Your task to perform on an android device: open chrome privacy settings Image 0: 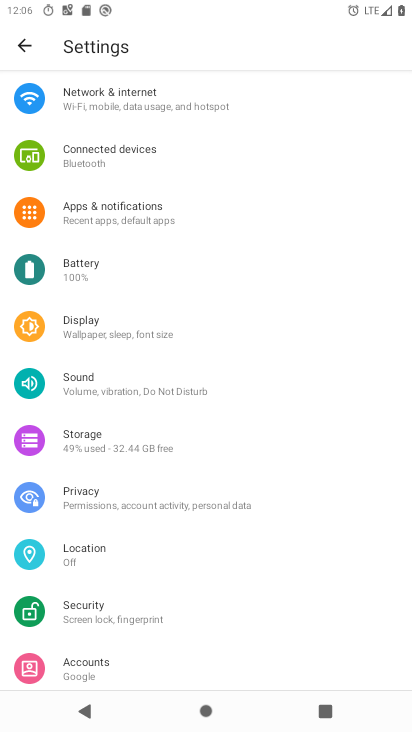
Step 0: press home button
Your task to perform on an android device: open chrome privacy settings Image 1: 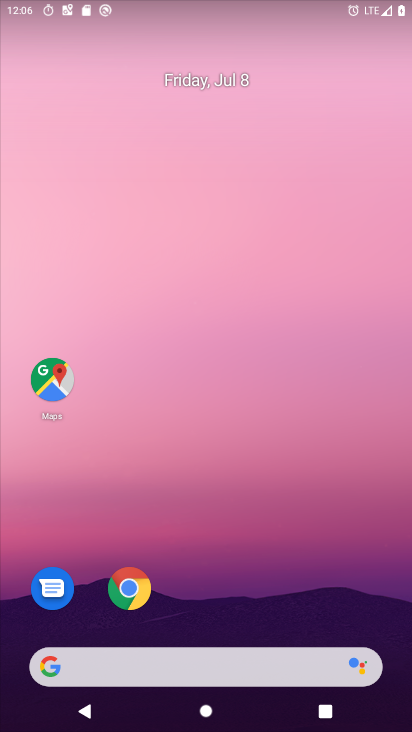
Step 1: click (132, 584)
Your task to perform on an android device: open chrome privacy settings Image 2: 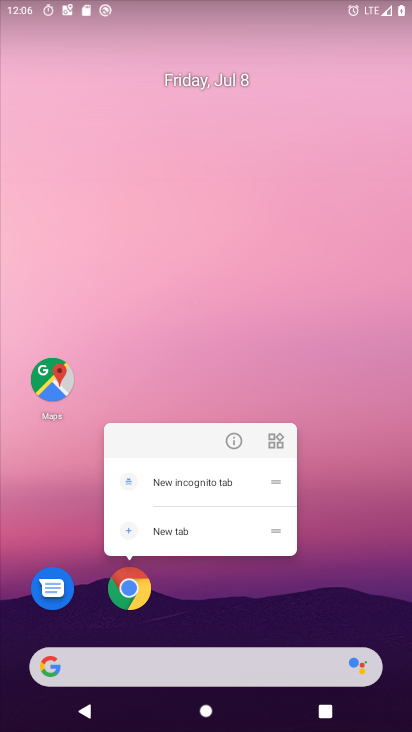
Step 2: click (128, 591)
Your task to perform on an android device: open chrome privacy settings Image 3: 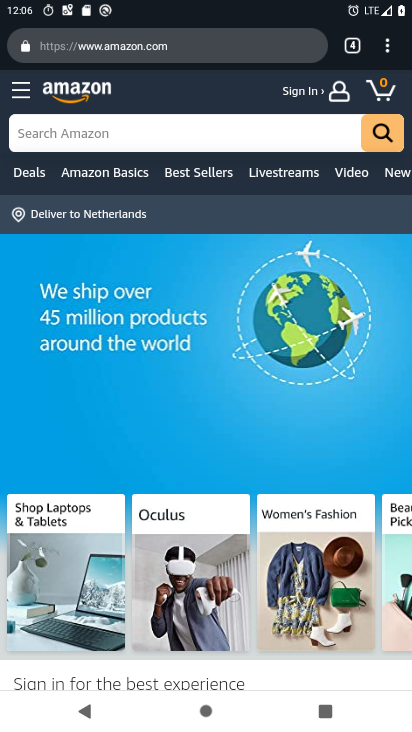
Step 3: drag from (386, 51) to (236, 548)
Your task to perform on an android device: open chrome privacy settings Image 4: 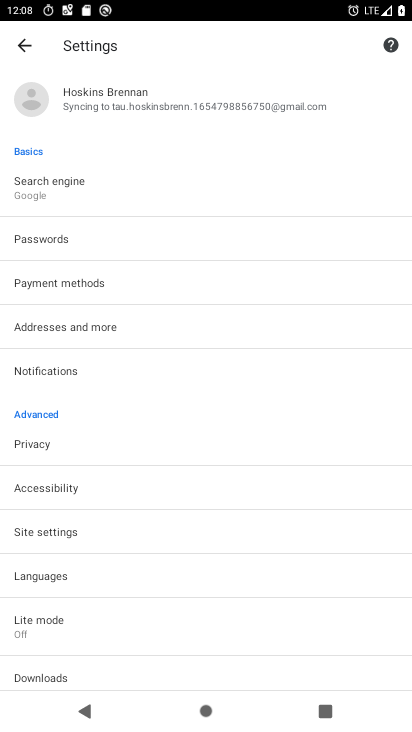
Step 4: click (56, 445)
Your task to perform on an android device: open chrome privacy settings Image 5: 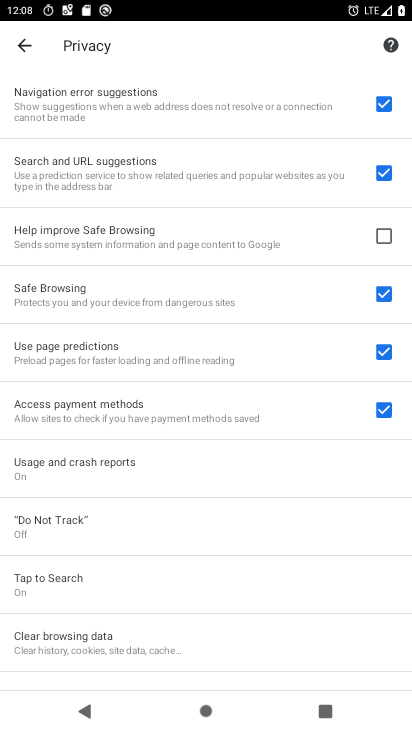
Step 5: task complete